Your task to perform on an android device: turn on sleep mode Image 0: 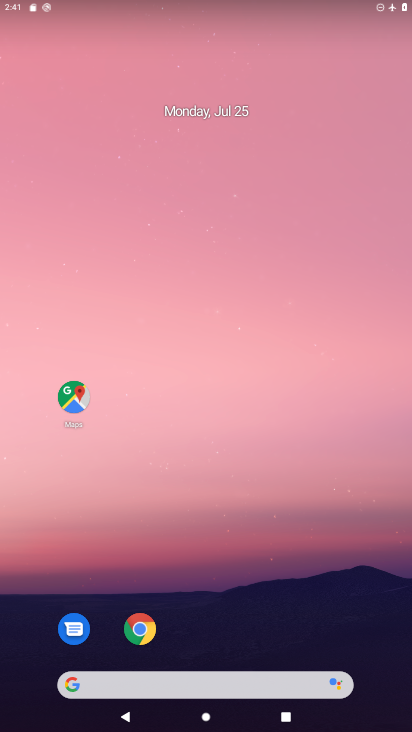
Step 0: drag from (270, 616) to (250, 113)
Your task to perform on an android device: turn on sleep mode Image 1: 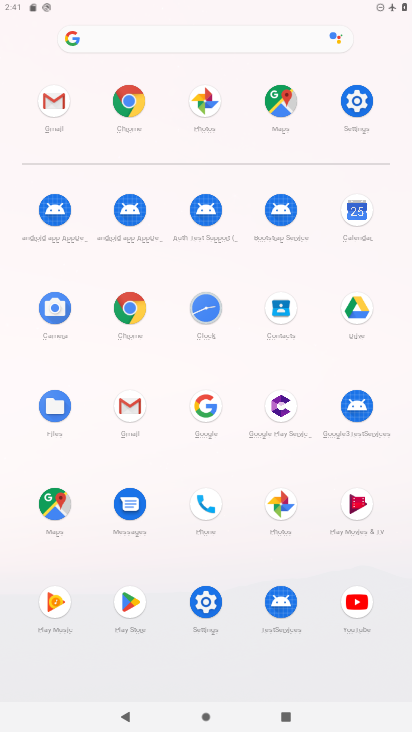
Step 1: click (345, 113)
Your task to perform on an android device: turn on sleep mode Image 2: 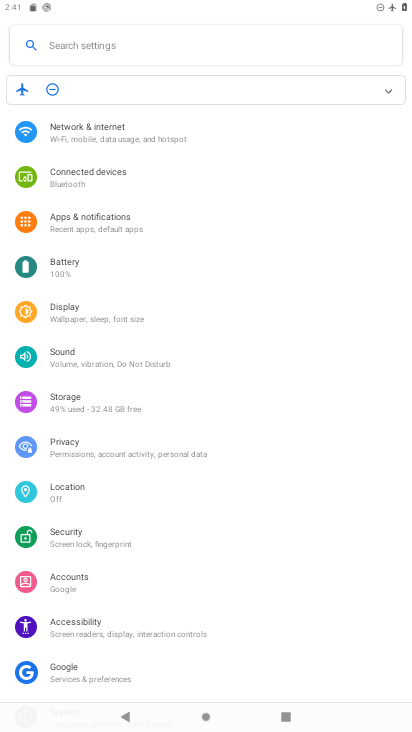
Step 2: click (77, 316)
Your task to perform on an android device: turn on sleep mode Image 3: 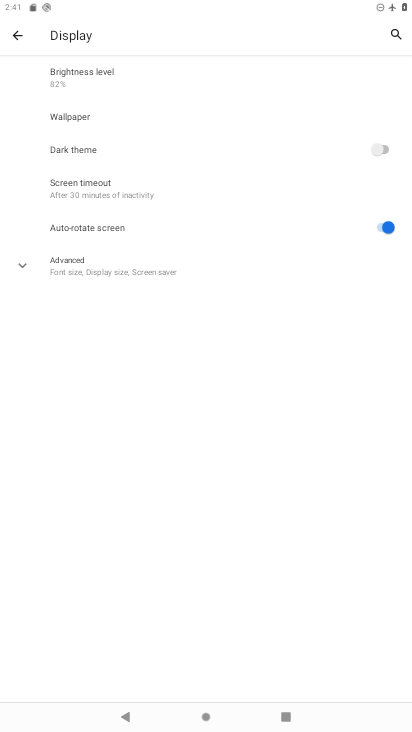
Step 3: click (80, 189)
Your task to perform on an android device: turn on sleep mode Image 4: 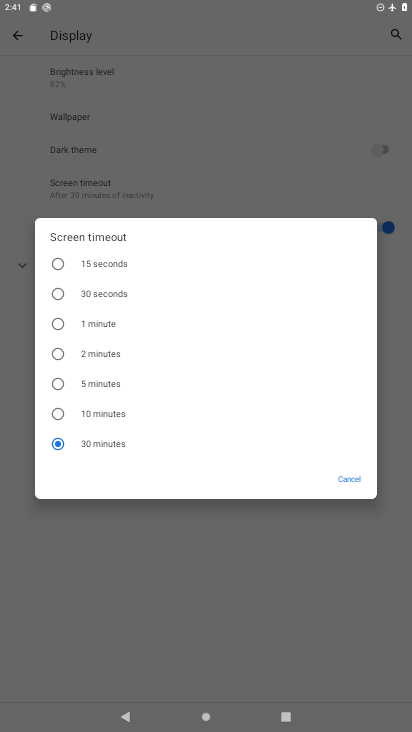
Step 4: task complete